Your task to perform on an android device: open a new tab in the chrome app Image 0: 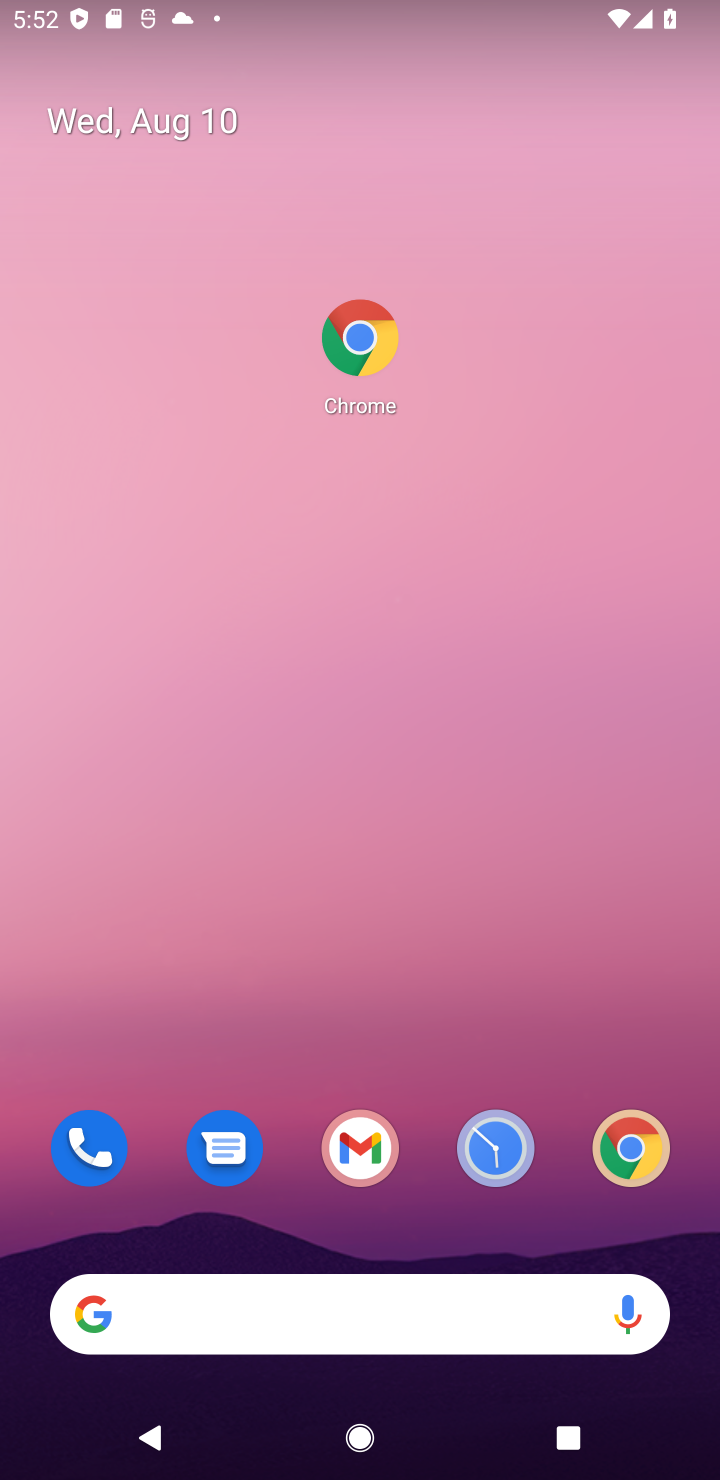
Step 0: click (621, 1145)
Your task to perform on an android device: open a new tab in the chrome app Image 1: 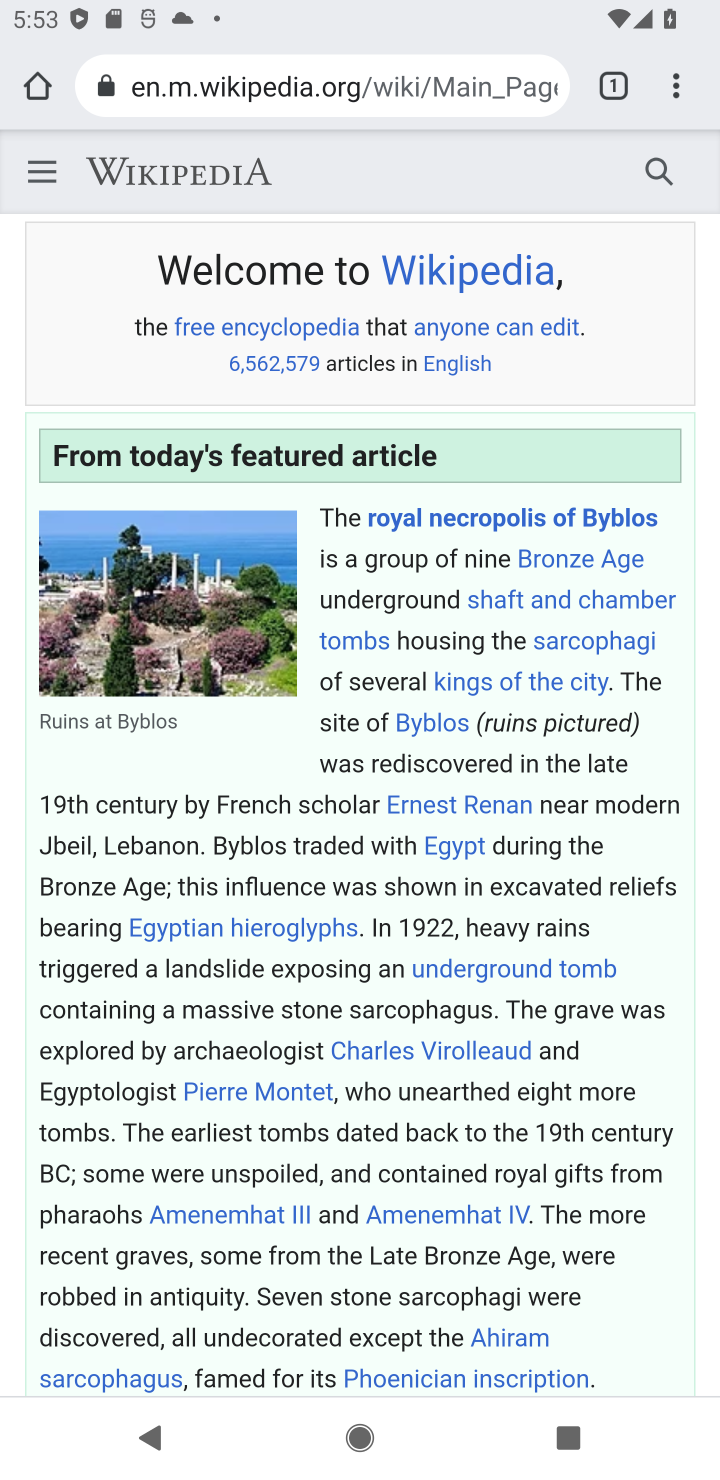
Step 1: click (677, 86)
Your task to perform on an android device: open a new tab in the chrome app Image 2: 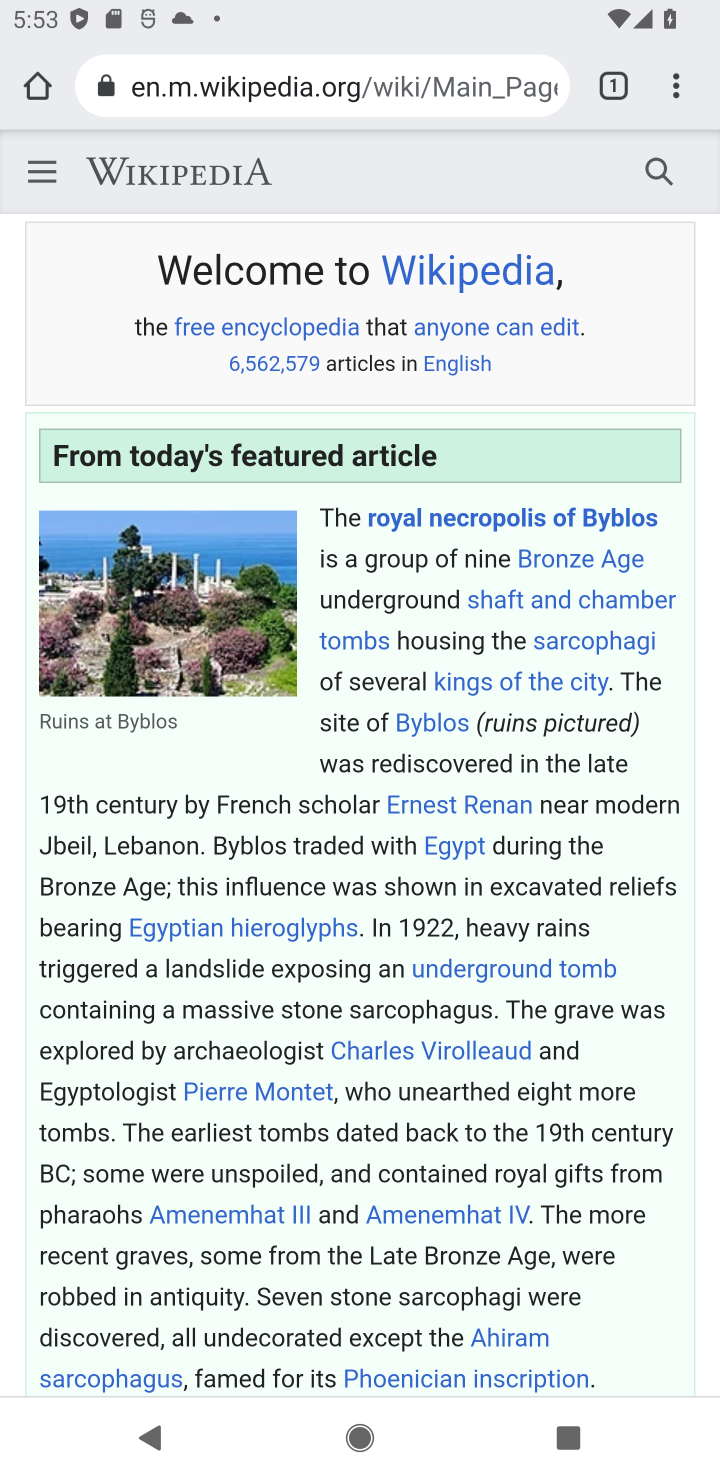
Step 2: click (665, 93)
Your task to perform on an android device: open a new tab in the chrome app Image 3: 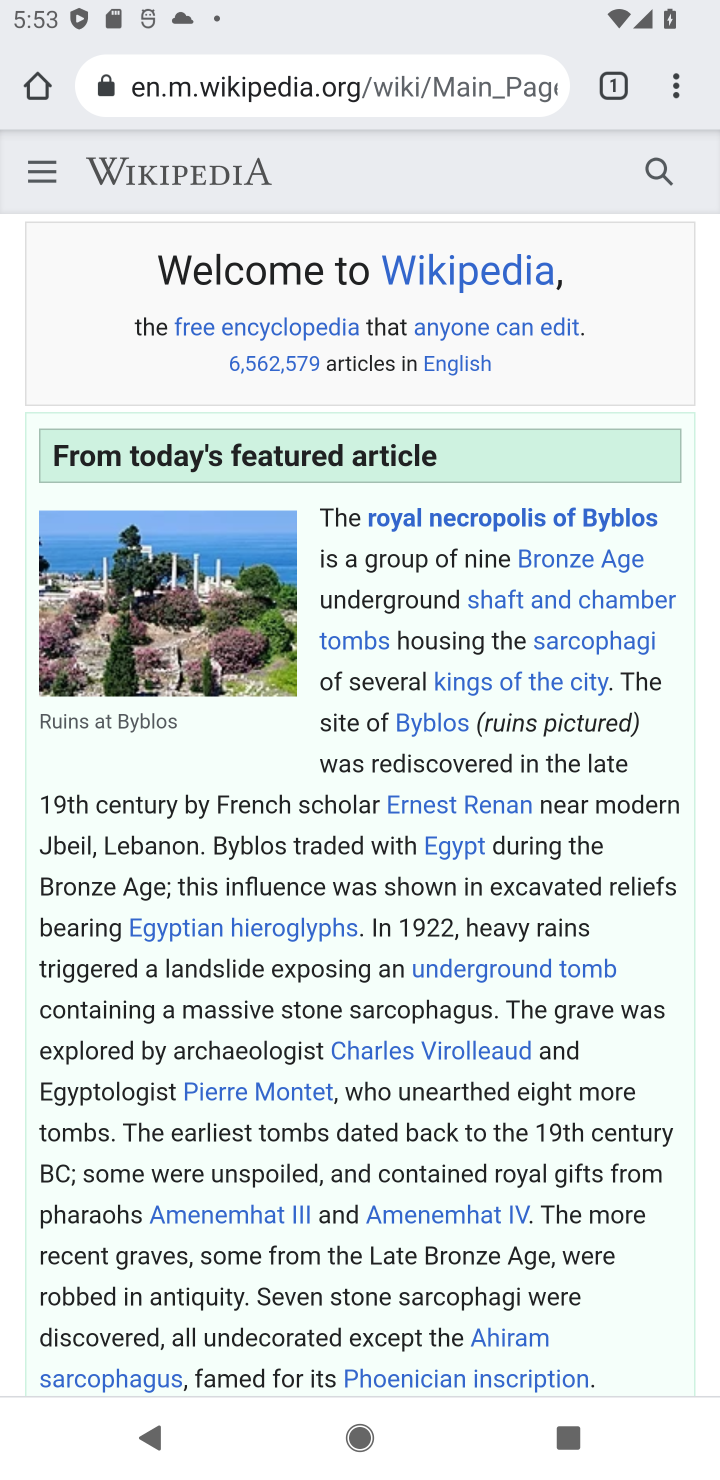
Step 3: click (592, 83)
Your task to perform on an android device: open a new tab in the chrome app Image 4: 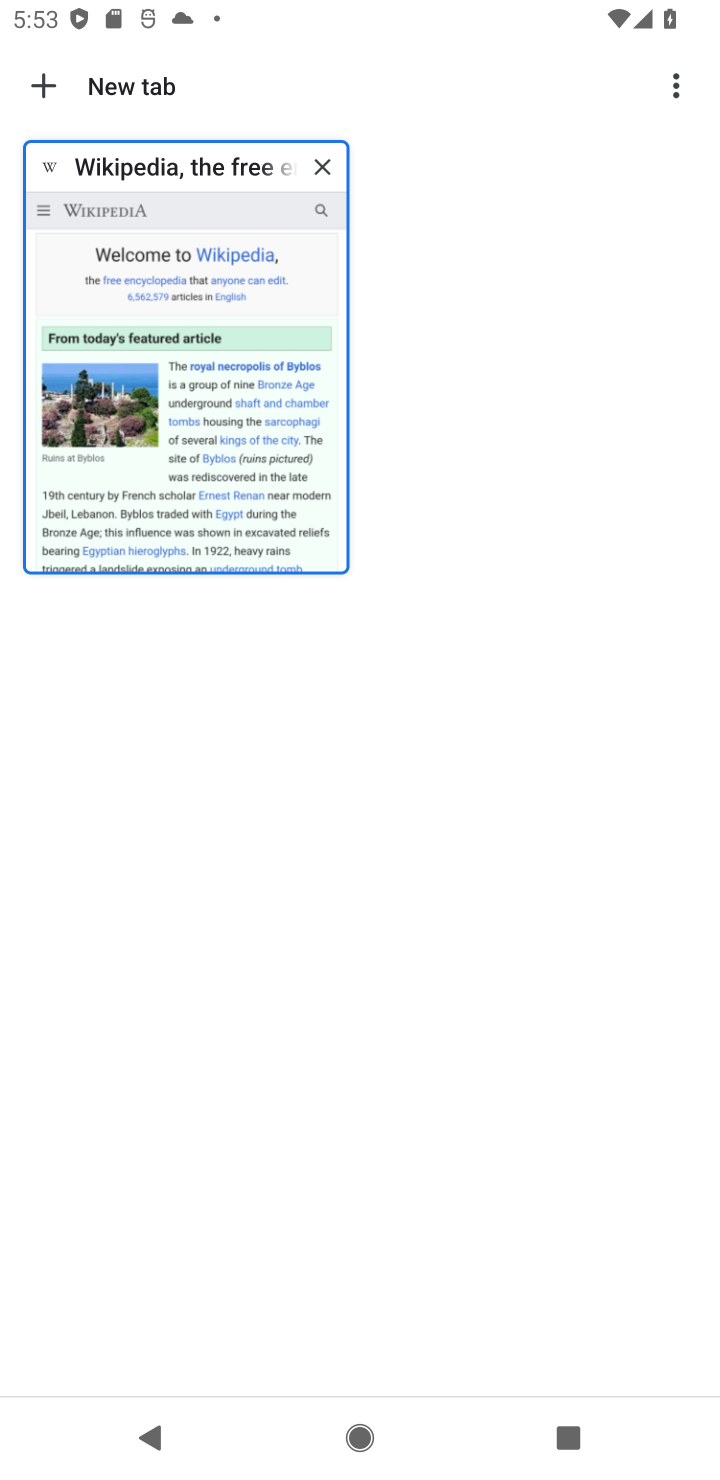
Step 4: click (39, 72)
Your task to perform on an android device: open a new tab in the chrome app Image 5: 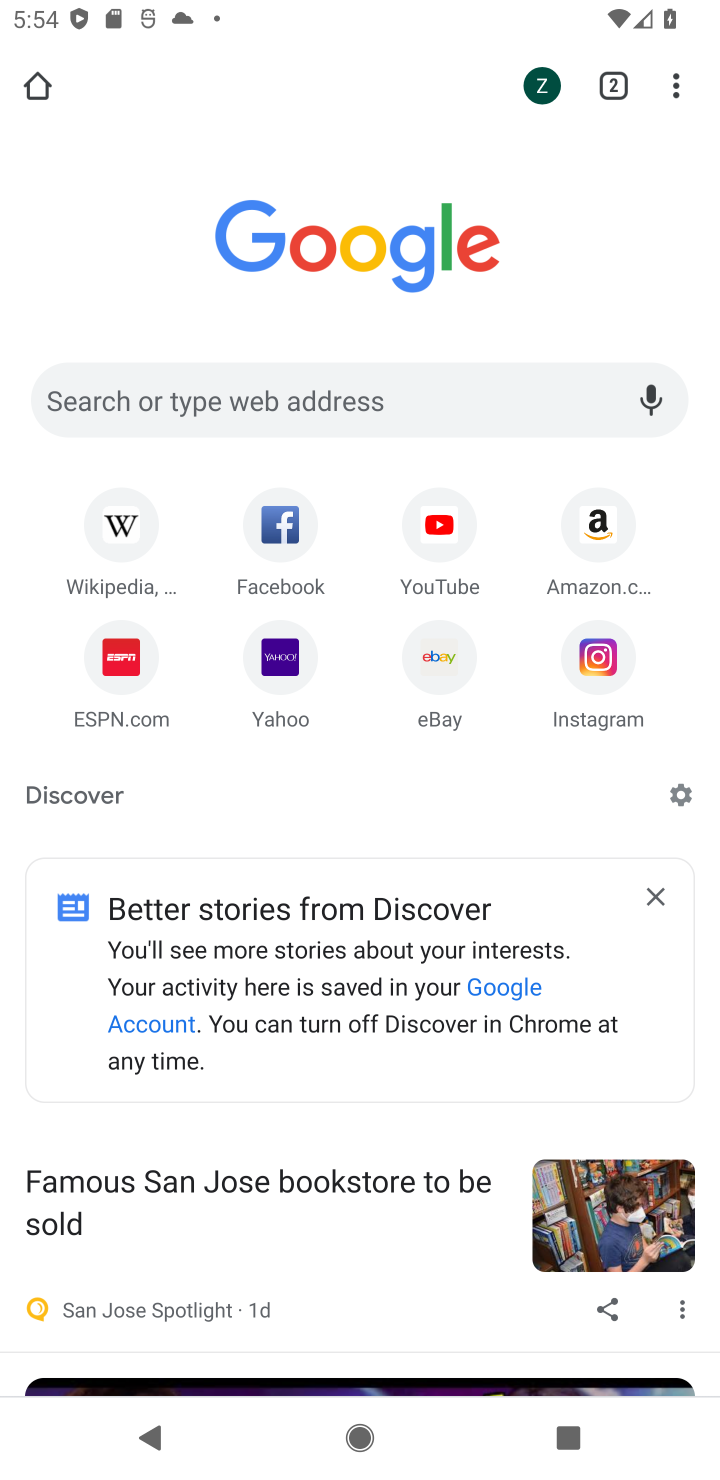
Step 5: task complete